Your task to perform on an android device: What is the news today? Image 0: 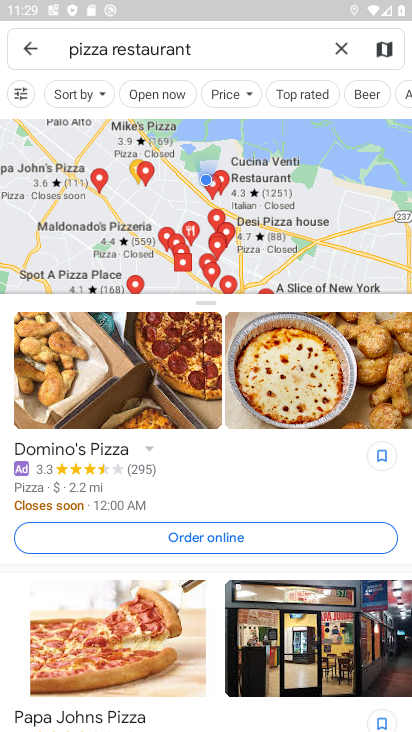
Step 0: press home button
Your task to perform on an android device: What is the news today? Image 1: 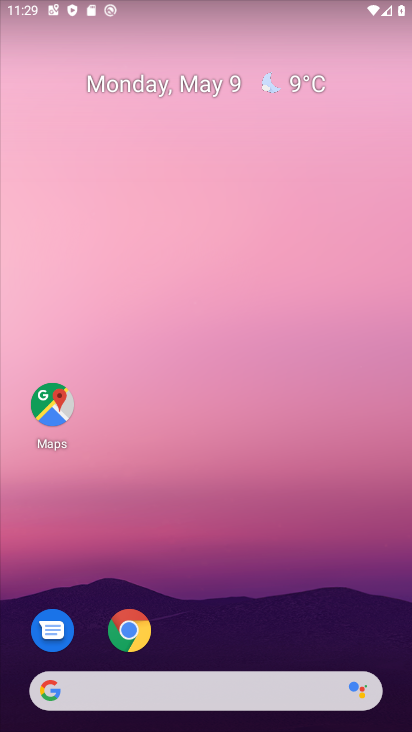
Step 1: click (6, 276)
Your task to perform on an android device: What is the news today? Image 2: 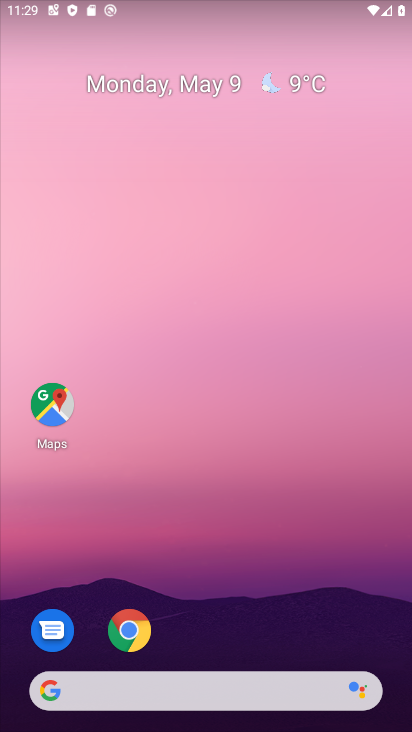
Step 2: task complete